Your task to perform on an android device: Go to calendar. Show me events next week Image 0: 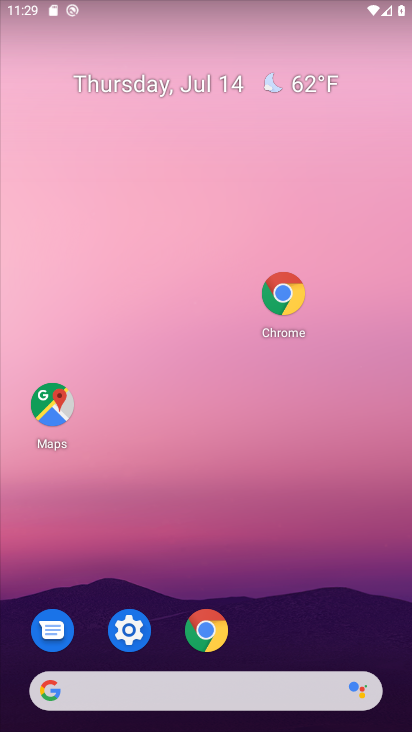
Step 0: drag from (187, 470) to (106, 181)
Your task to perform on an android device: Go to calendar. Show me events next week Image 1: 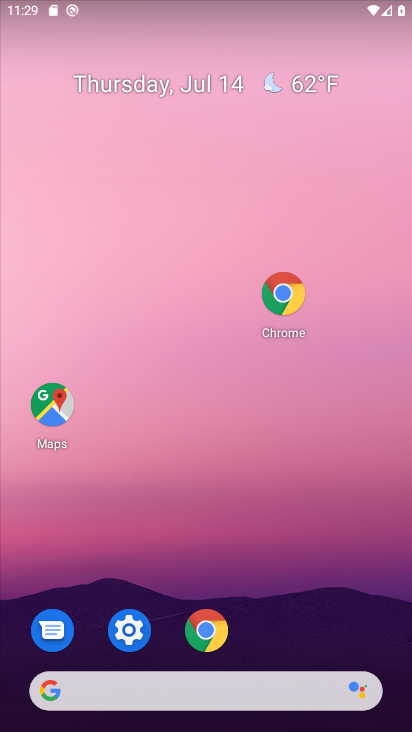
Step 1: drag from (279, 695) to (240, 116)
Your task to perform on an android device: Go to calendar. Show me events next week Image 2: 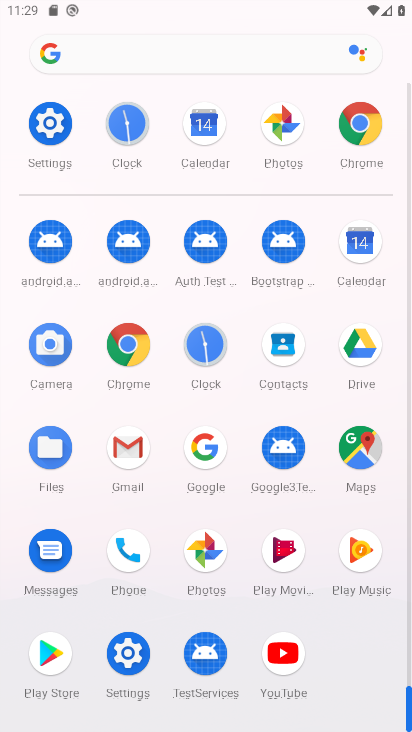
Step 2: click (127, 646)
Your task to perform on an android device: Go to calendar. Show me events next week Image 3: 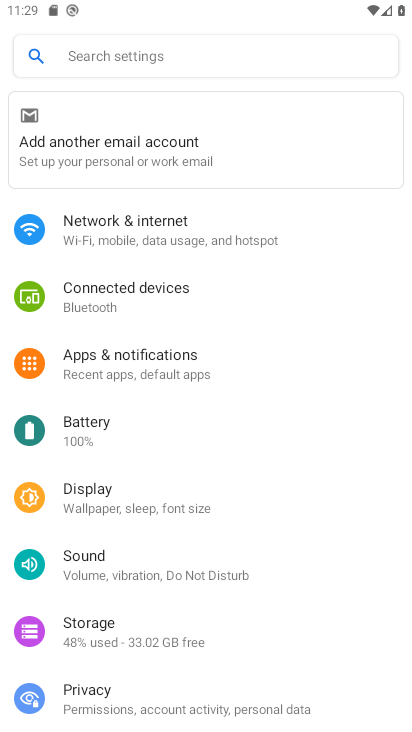
Step 3: drag from (139, 534) to (130, 157)
Your task to perform on an android device: Go to calendar. Show me events next week Image 4: 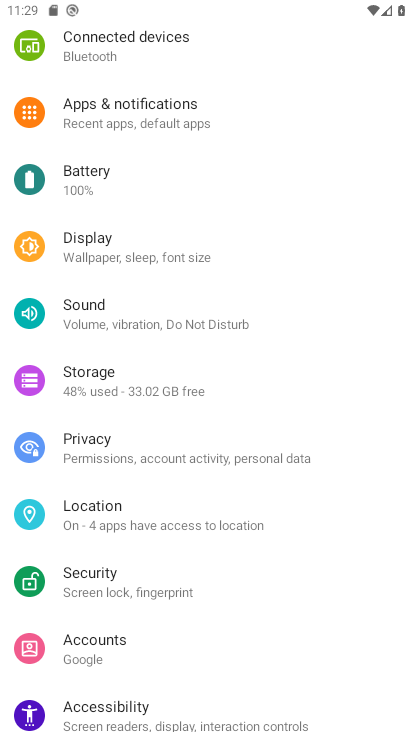
Step 4: drag from (130, 354) to (197, 119)
Your task to perform on an android device: Go to calendar. Show me events next week Image 5: 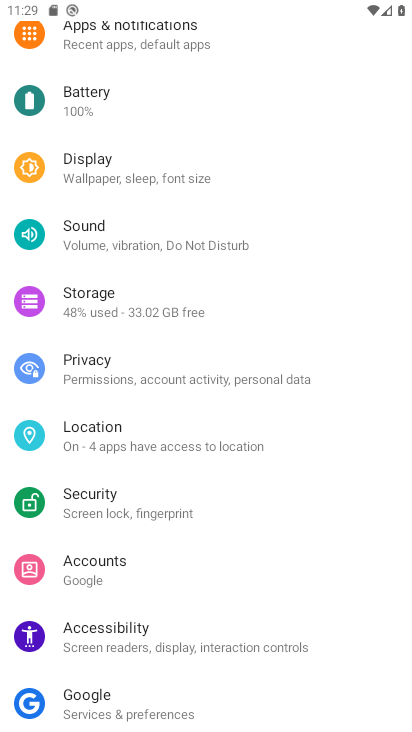
Step 5: drag from (87, 221) to (143, 614)
Your task to perform on an android device: Go to calendar. Show me events next week Image 6: 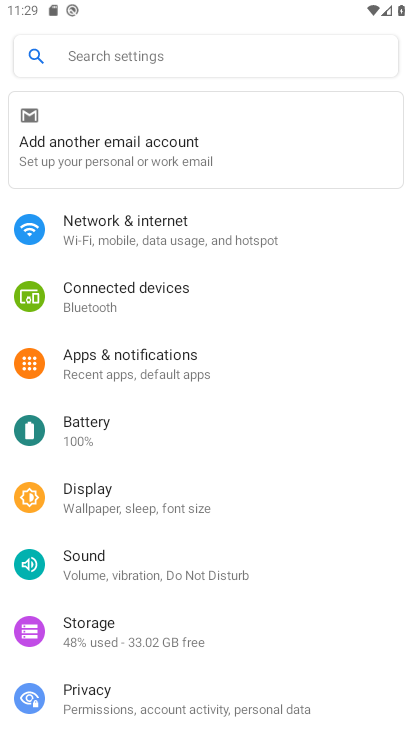
Step 6: press back button
Your task to perform on an android device: Go to calendar. Show me events next week Image 7: 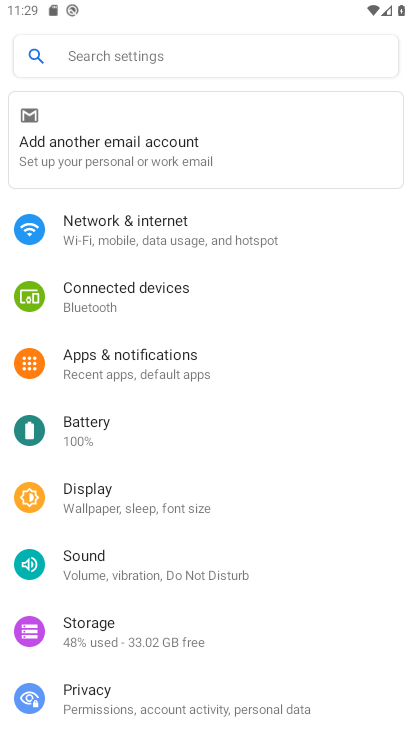
Step 7: press back button
Your task to perform on an android device: Go to calendar. Show me events next week Image 8: 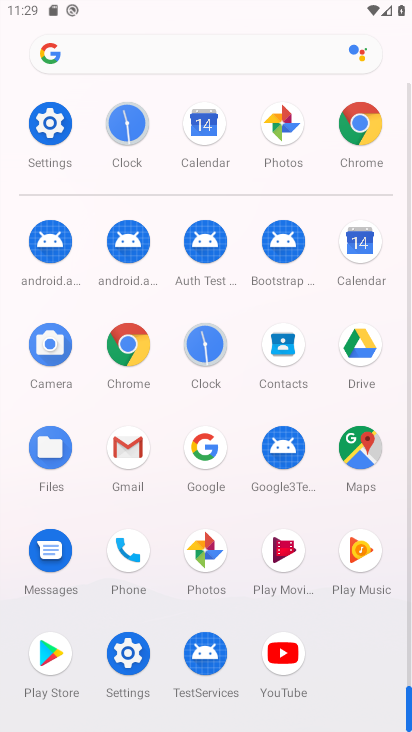
Step 8: click (350, 225)
Your task to perform on an android device: Go to calendar. Show me events next week Image 9: 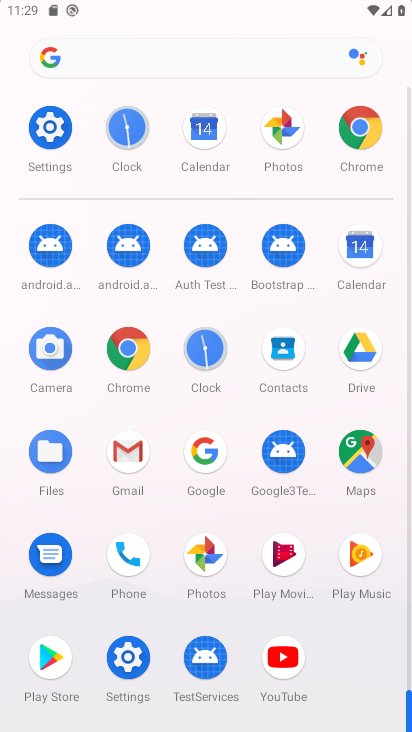
Step 9: click (358, 236)
Your task to perform on an android device: Go to calendar. Show me events next week Image 10: 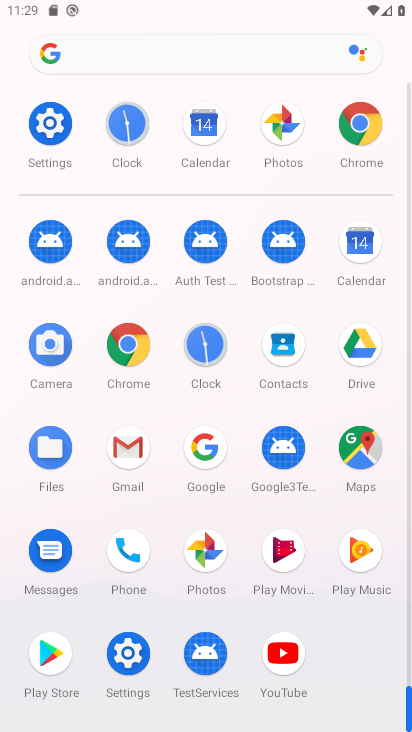
Step 10: click (358, 236)
Your task to perform on an android device: Go to calendar. Show me events next week Image 11: 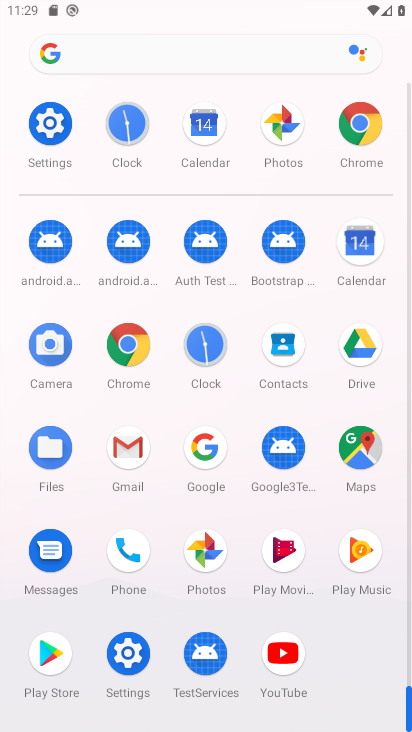
Step 11: click (359, 237)
Your task to perform on an android device: Go to calendar. Show me events next week Image 12: 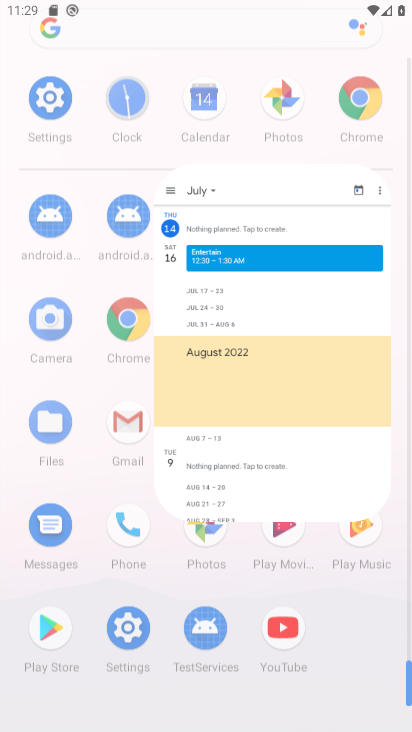
Step 12: click (359, 237)
Your task to perform on an android device: Go to calendar. Show me events next week Image 13: 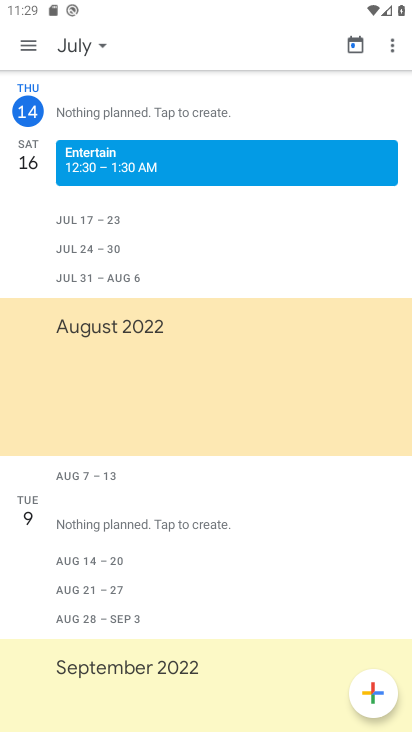
Step 13: click (106, 44)
Your task to perform on an android device: Go to calendar. Show me events next week Image 14: 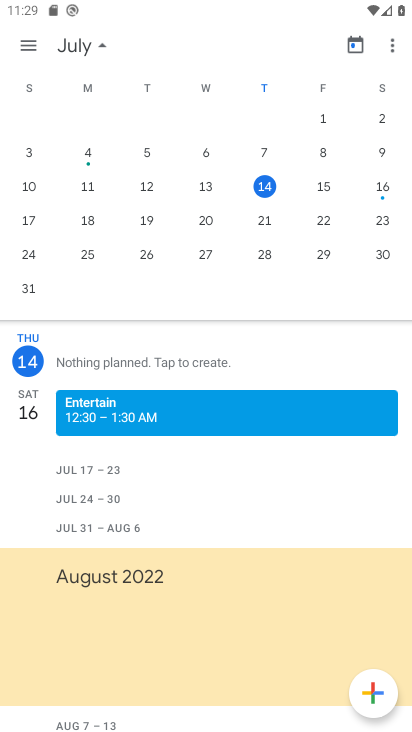
Step 14: click (385, 180)
Your task to perform on an android device: Go to calendar. Show me events next week Image 15: 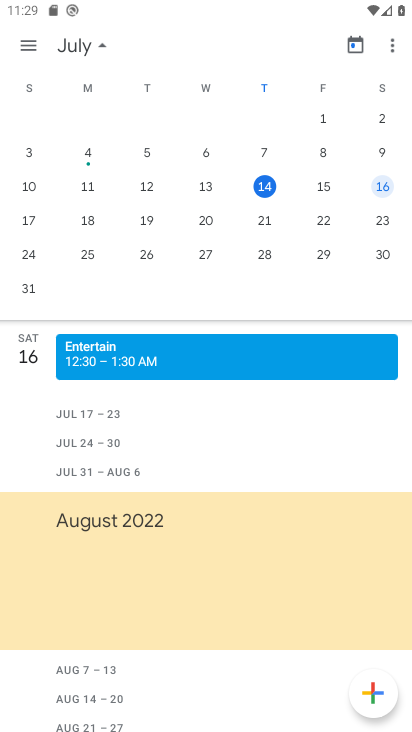
Step 15: task complete